Your task to perform on an android device: Go to ESPN.com Image 0: 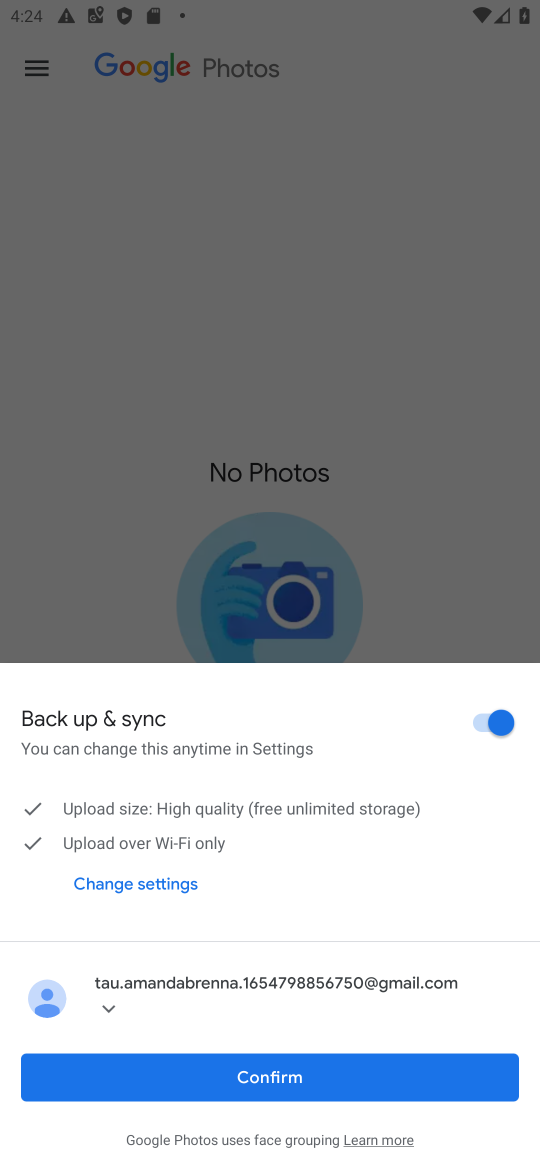
Step 0: press home button
Your task to perform on an android device: Go to ESPN.com Image 1: 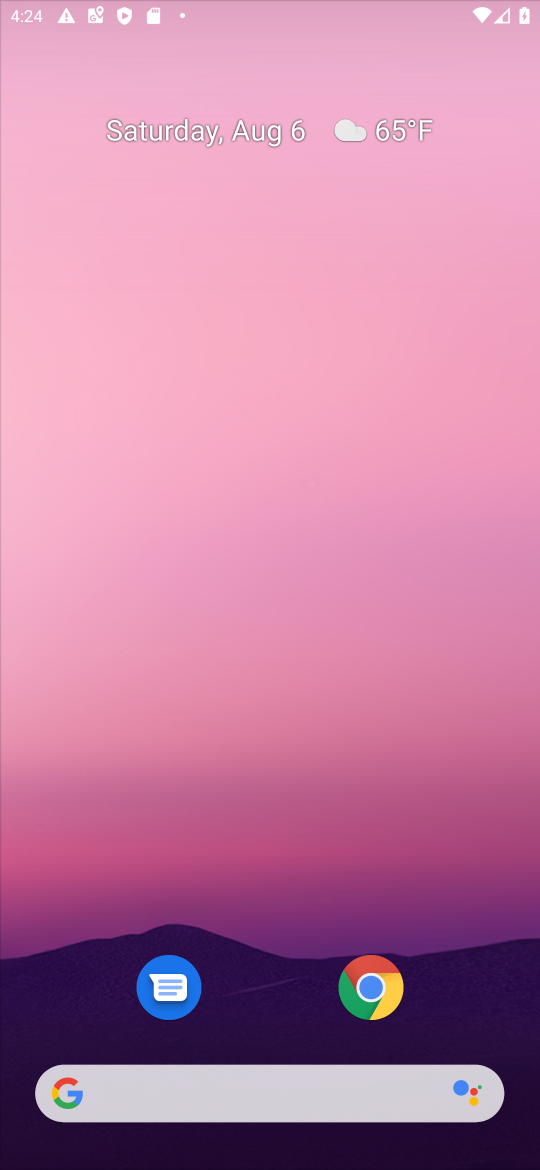
Step 1: drag from (275, 836) to (425, 5)
Your task to perform on an android device: Go to ESPN.com Image 2: 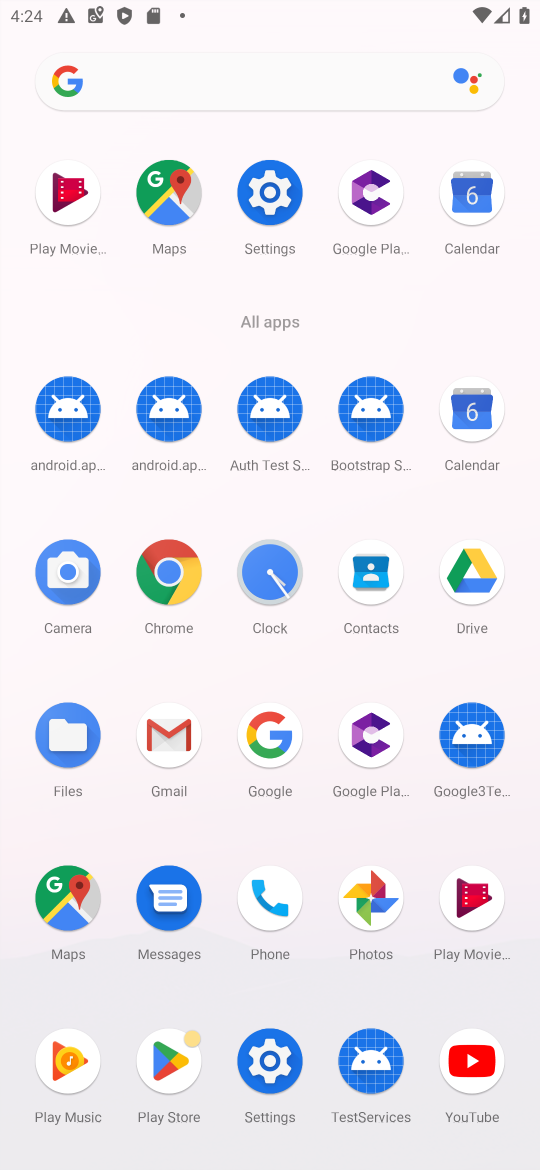
Step 2: click (181, 584)
Your task to perform on an android device: Go to ESPN.com Image 3: 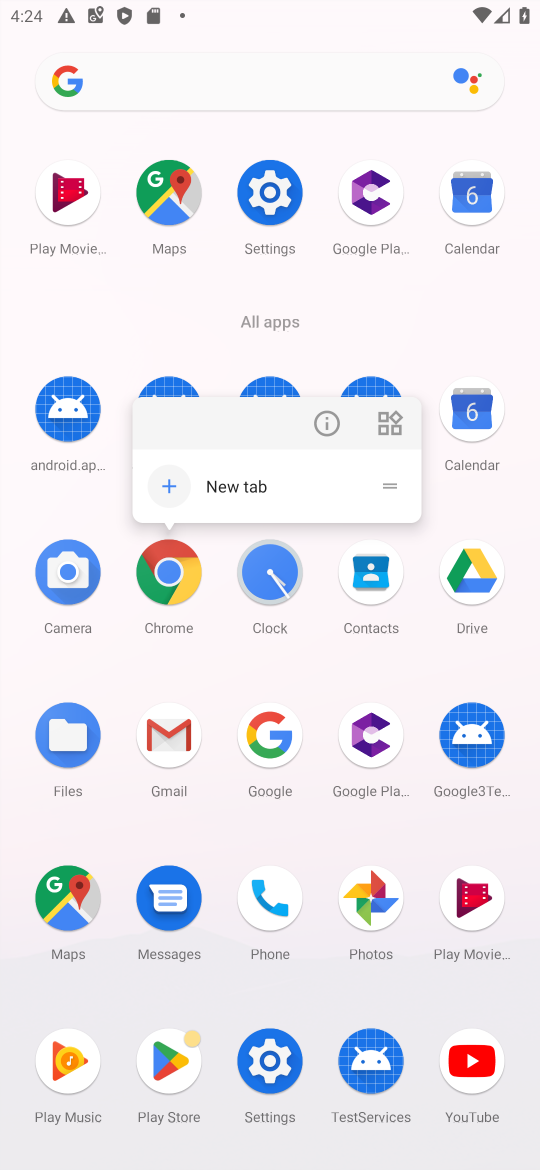
Step 3: click (167, 589)
Your task to perform on an android device: Go to ESPN.com Image 4: 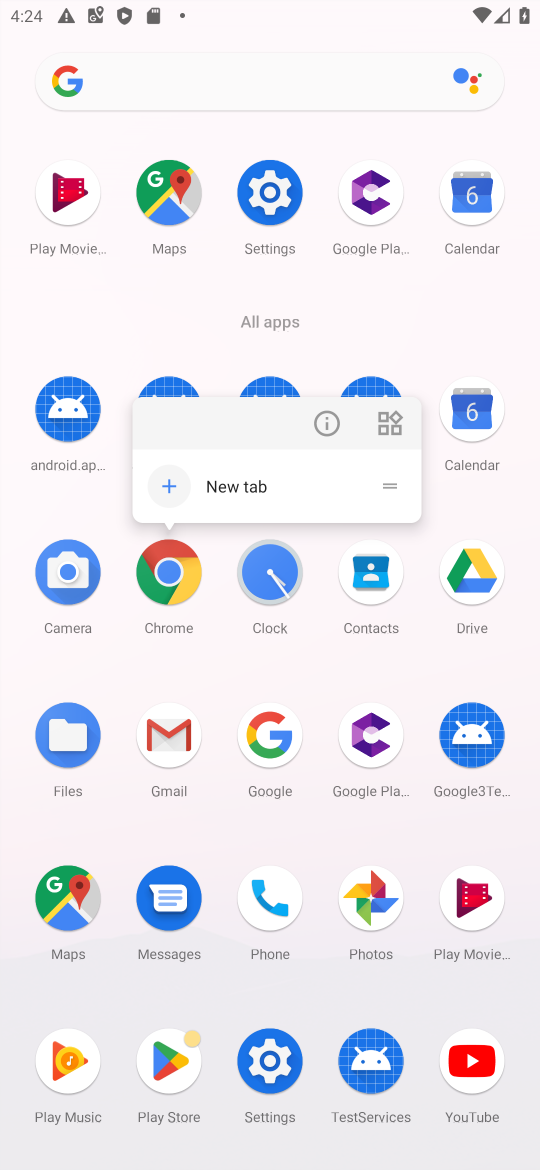
Step 4: click (172, 602)
Your task to perform on an android device: Go to ESPN.com Image 5: 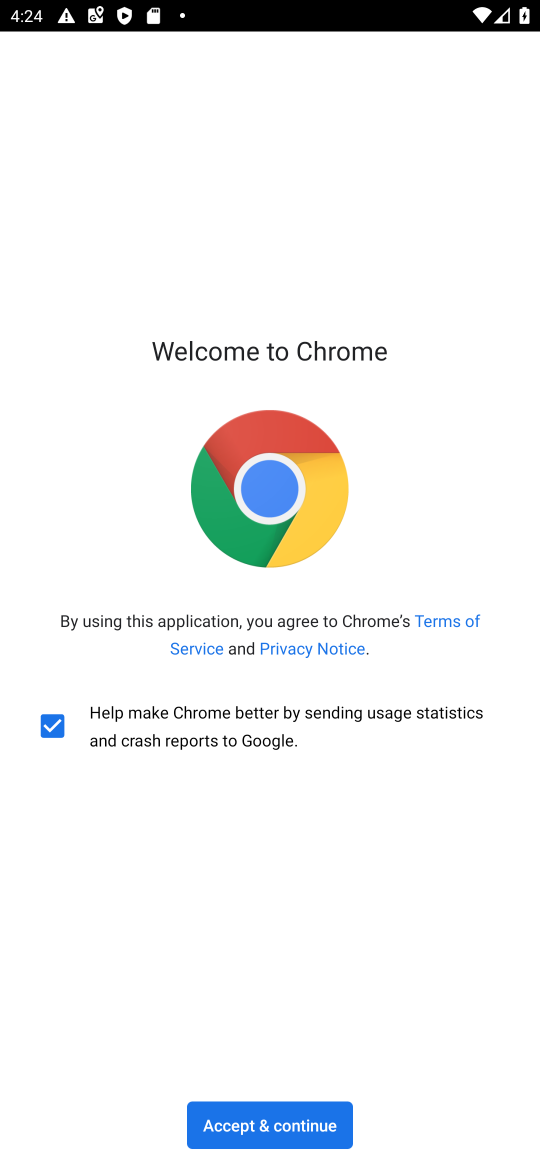
Step 5: click (313, 1130)
Your task to perform on an android device: Go to ESPN.com Image 6: 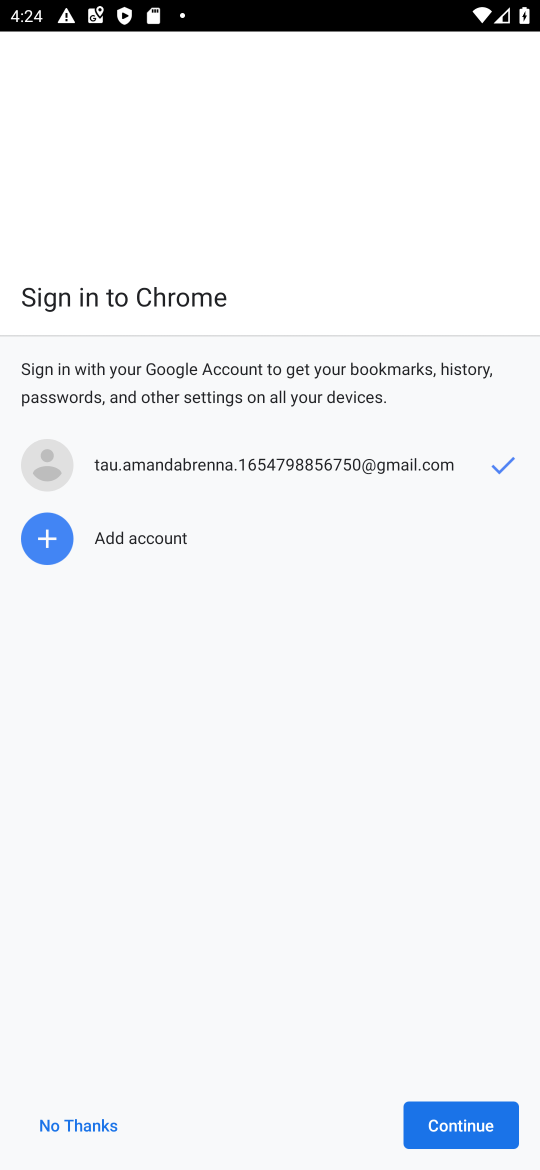
Step 6: click (461, 1129)
Your task to perform on an android device: Go to ESPN.com Image 7: 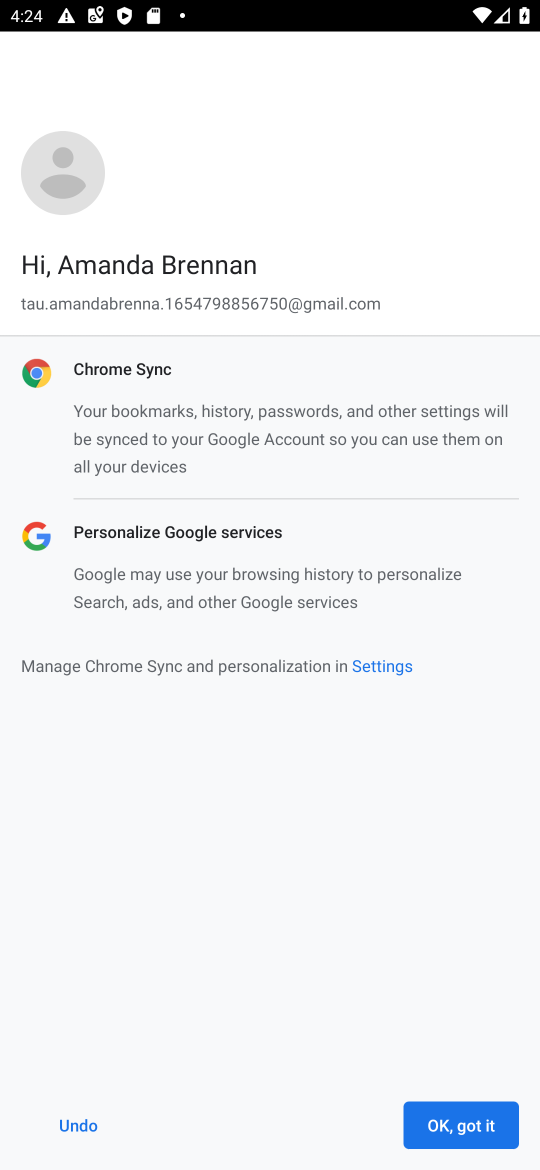
Step 7: click (462, 1122)
Your task to perform on an android device: Go to ESPN.com Image 8: 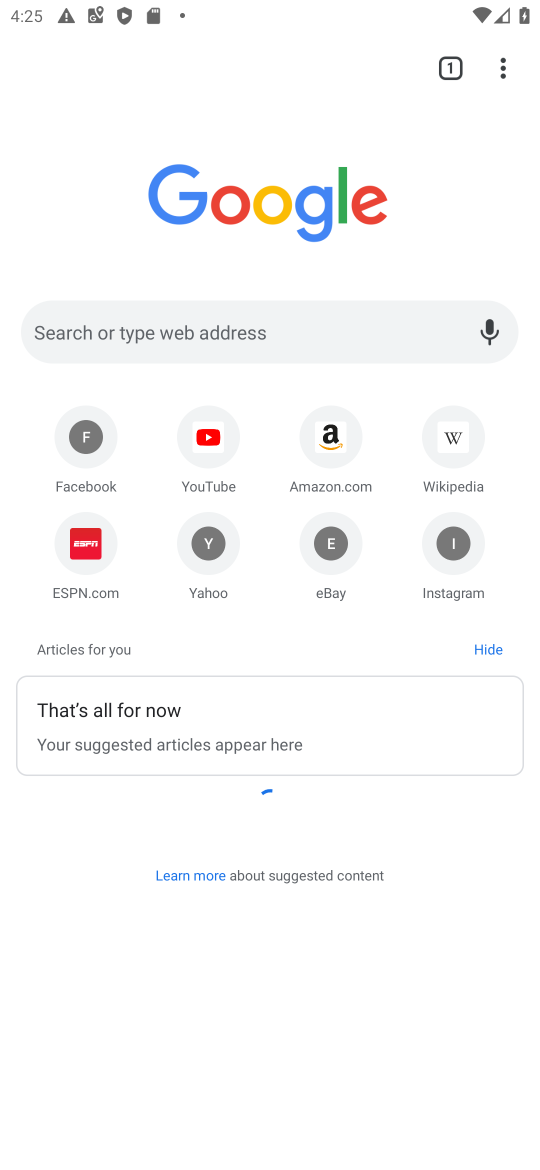
Step 8: click (89, 575)
Your task to perform on an android device: Go to ESPN.com Image 9: 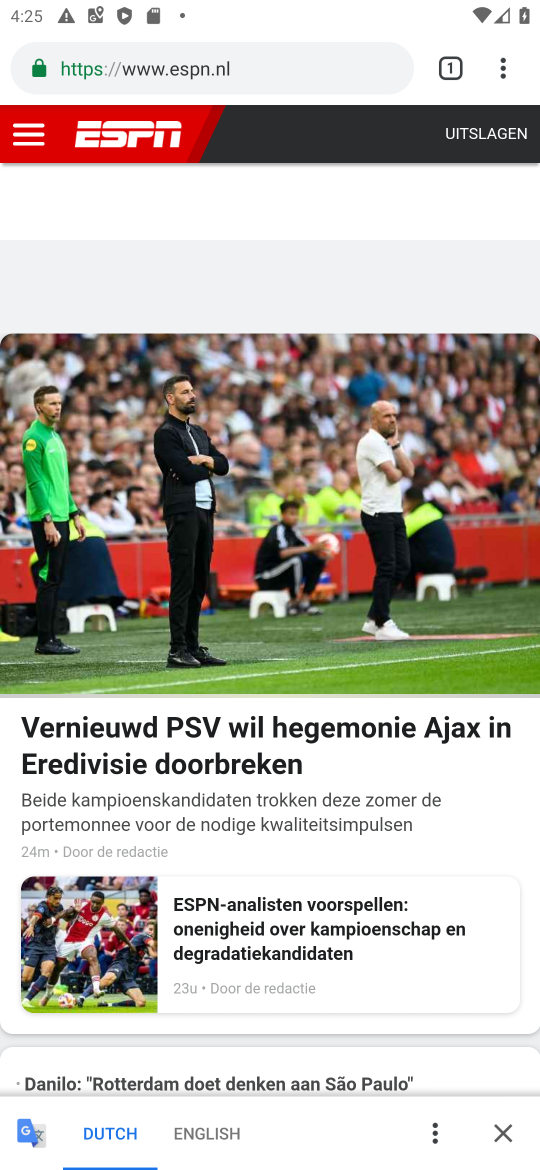
Step 9: task complete